Your task to perform on an android device: What's on my calendar today? Image 0: 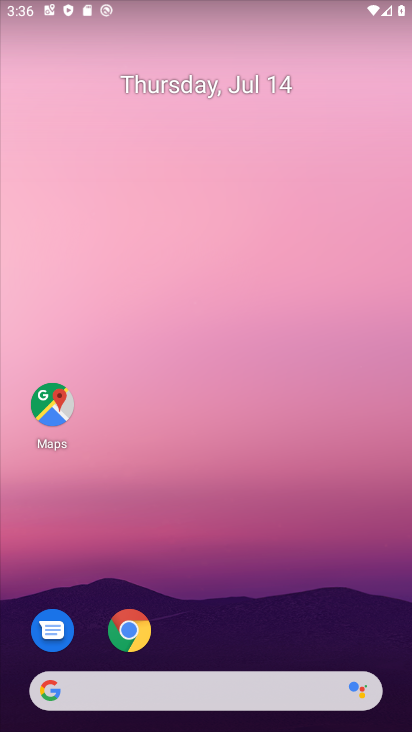
Step 0: drag from (235, 723) to (238, 72)
Your task to perform on an android device: What's on my calendar today? Image 1: 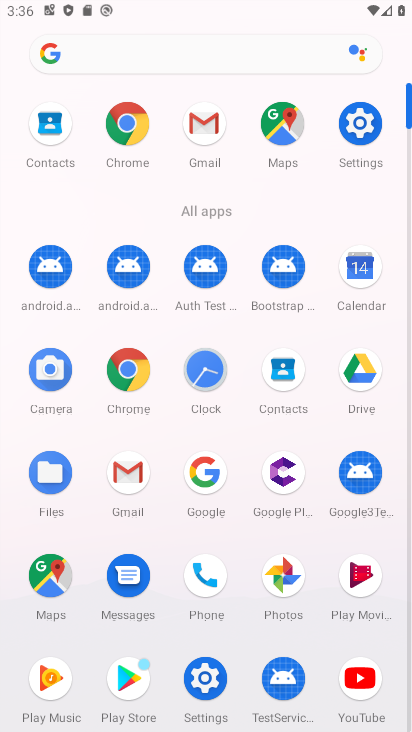
Step 1: click (364, 266)
Your task to perform on an android device: What's on my calendar today? Image 2: 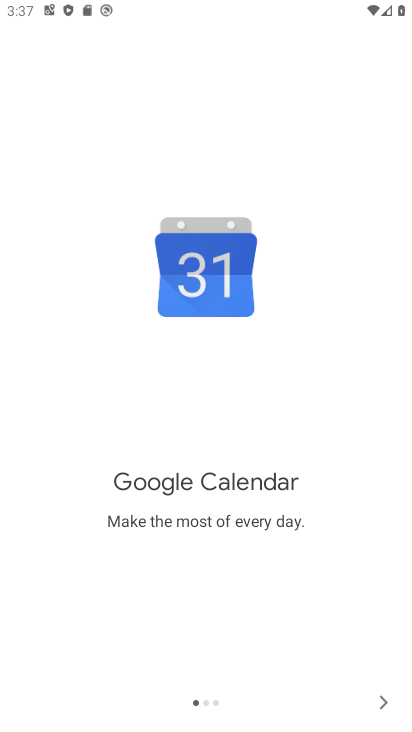
Step 2: click (383, 703)
Your task to perform on an android device: What's on my calendar today? Image 3: 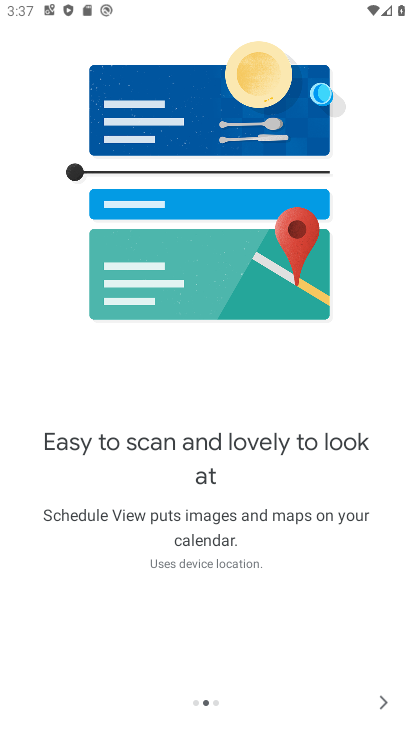
Step 3: click (382, 704)
Your task to perform on an android device: What's on my calendar today? Image 4: 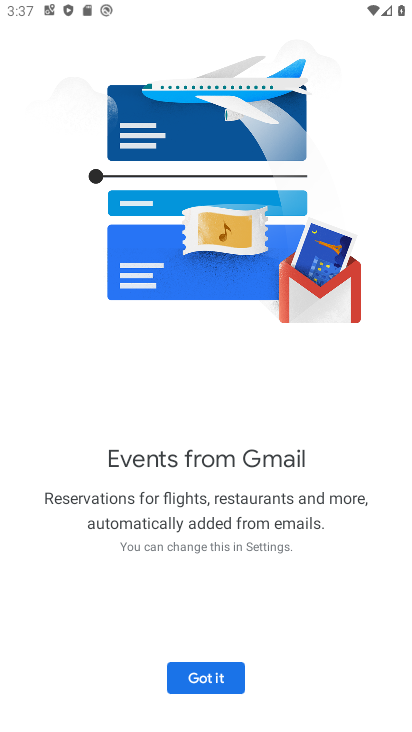
Step 4: click (204, 669)
Your task to perform on an android device: What's on my calendar today? Image 5: 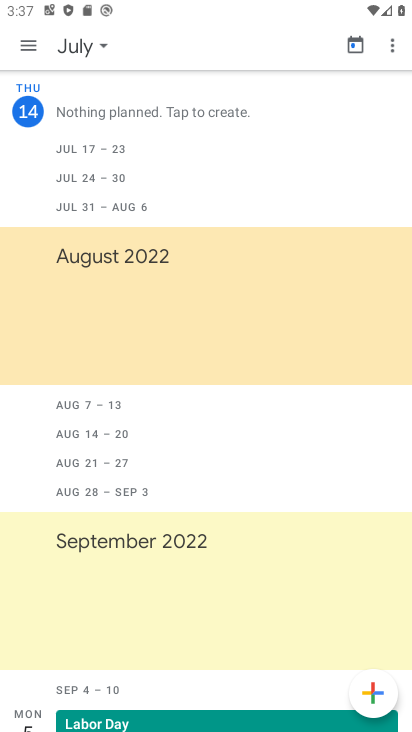
Step 5: click (27, 105)
Your task to perform on an android device: What's on my calendar today? Image 6: 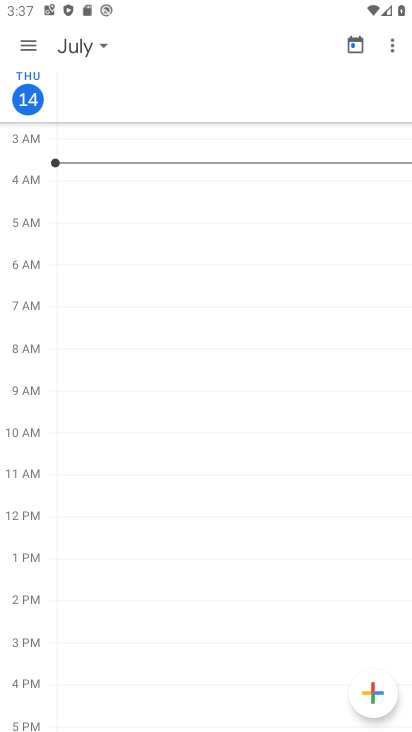
Step 6: click (27, 105)
Your task to perform on an android device: What's on my calendar today? Image 7: 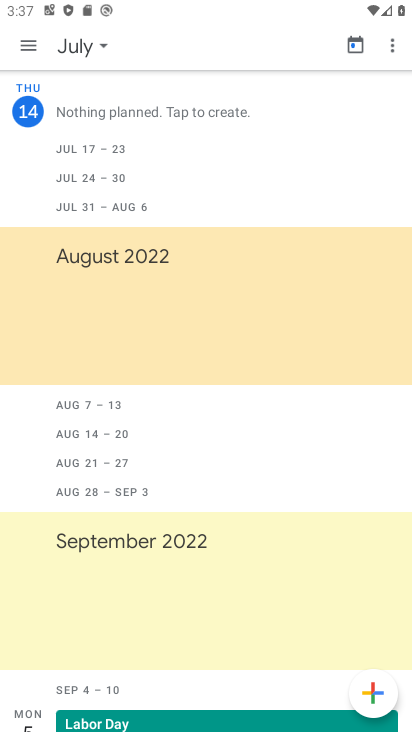
Step 7: task complete